Your task to perform on an android device: uninstall "Spotify: Music and Podcasts" Image 0: 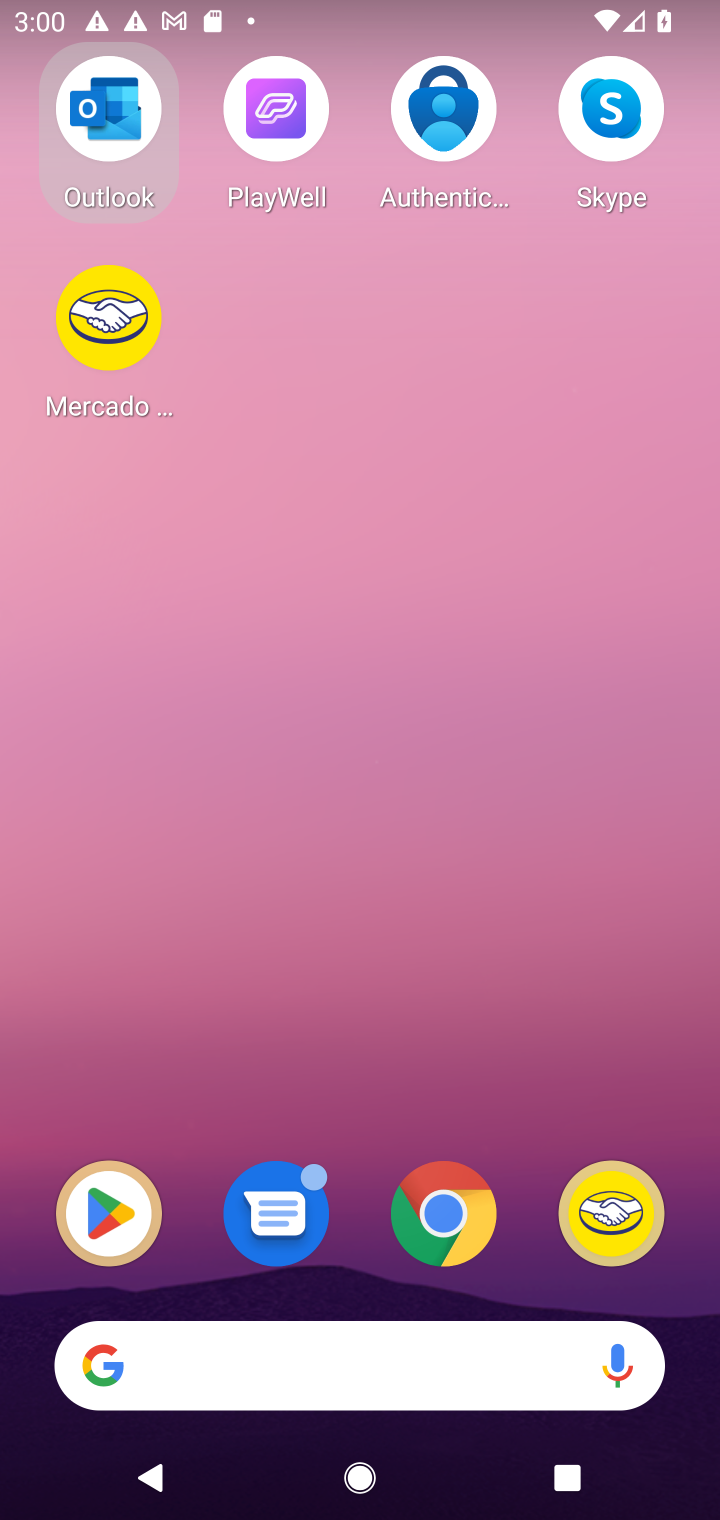
Step 0: drag from (510, 705) to (318, 17)
Your task to perform on an android device: uninstall "Spotify: Music and Podcasts" Image 1: 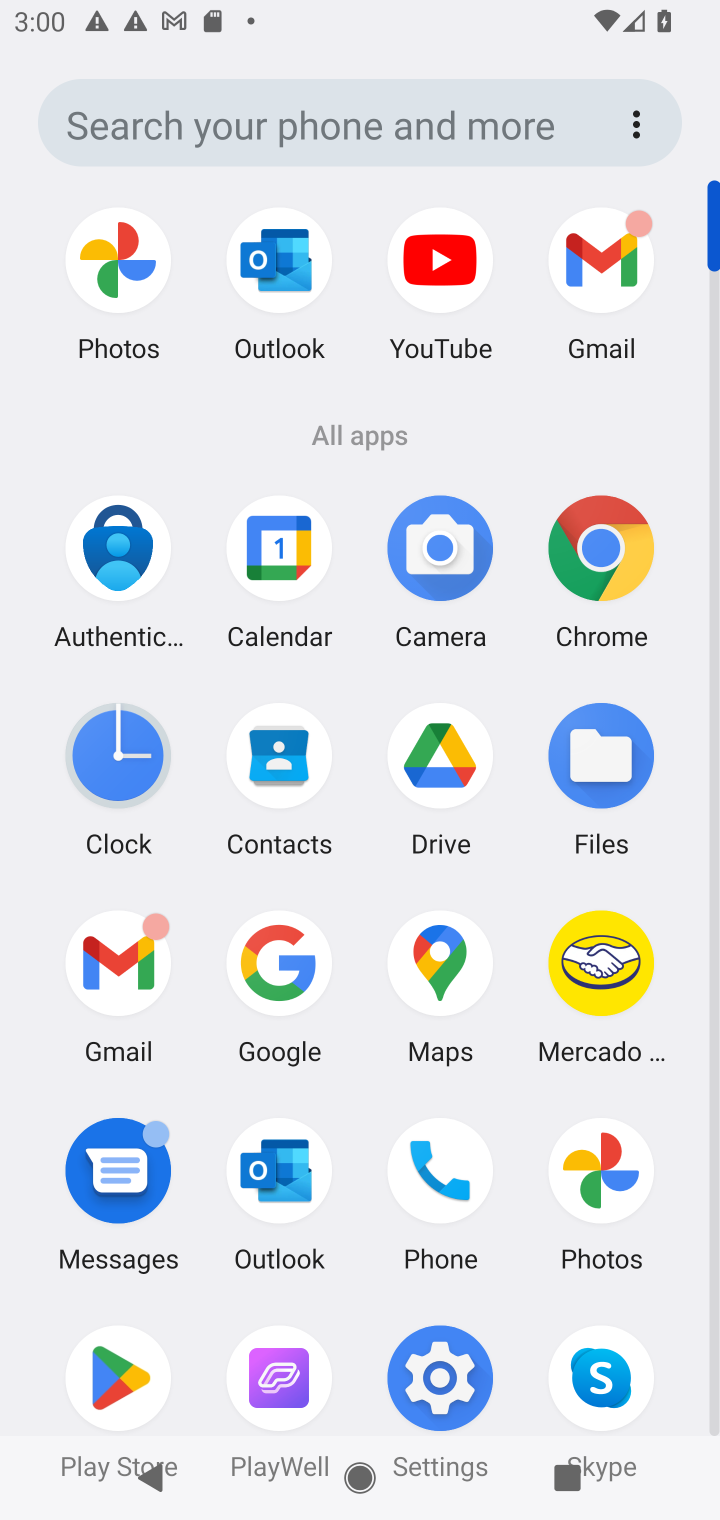
Step 1: drag from (358, 1298) to (416, 539)
Your task to perform on an android device: uninstall "Spotify: Music and Podcasts" Image 2: 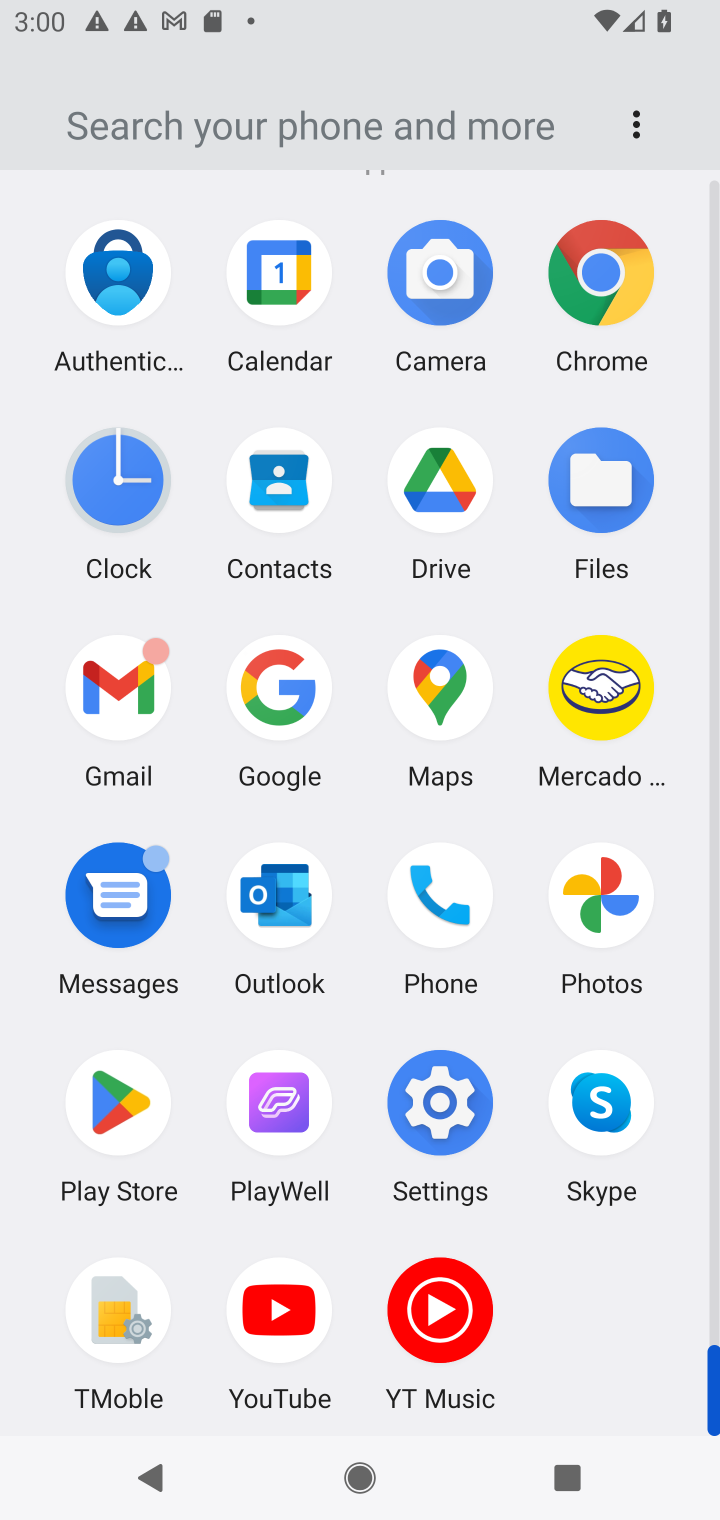
Step 2: click (135, 1069)
Your task to perform on an android device: uninstall "Spotify: Music and Podcasts" Image 3: 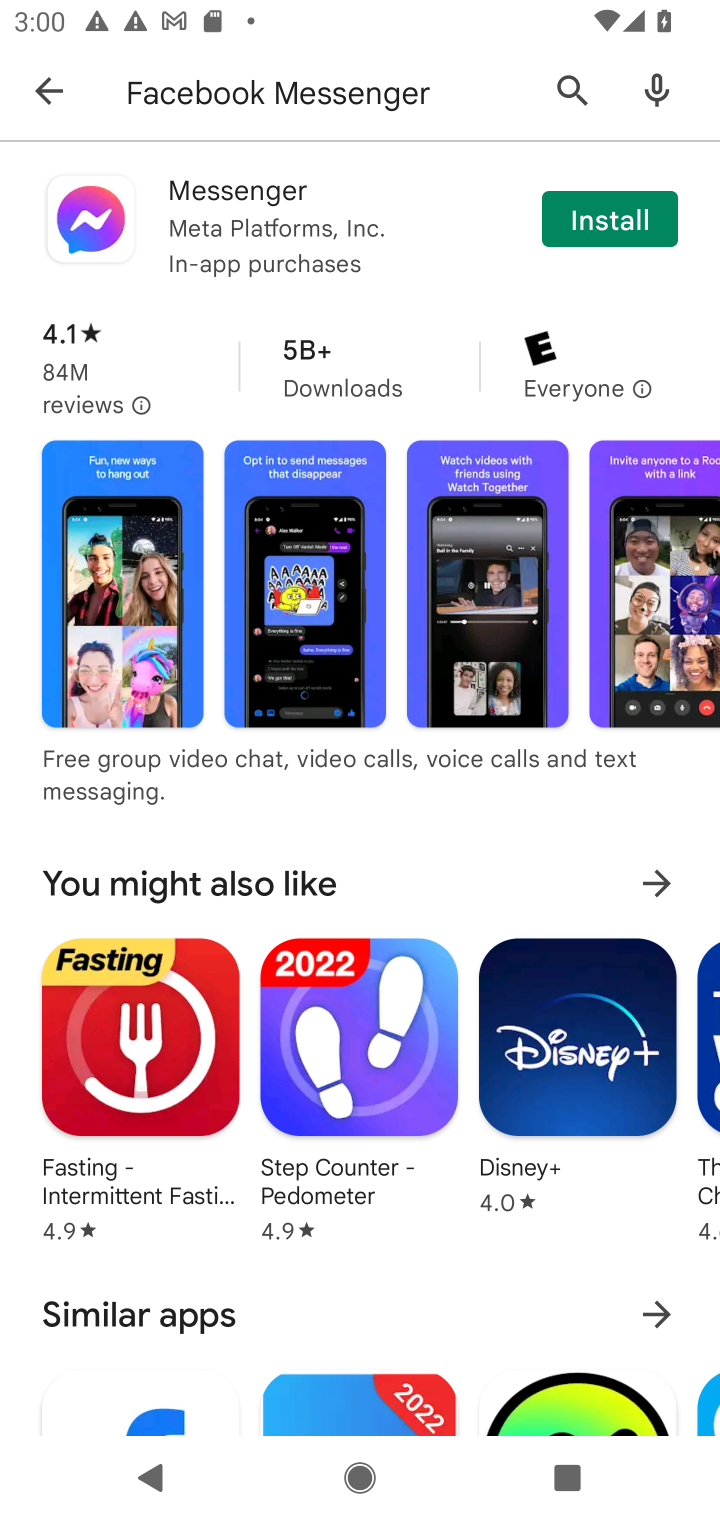
Step 3: click (380, 98)
Your task to perform on an android device: uninstall "Spotify: Music and Podcasts" Image 4: 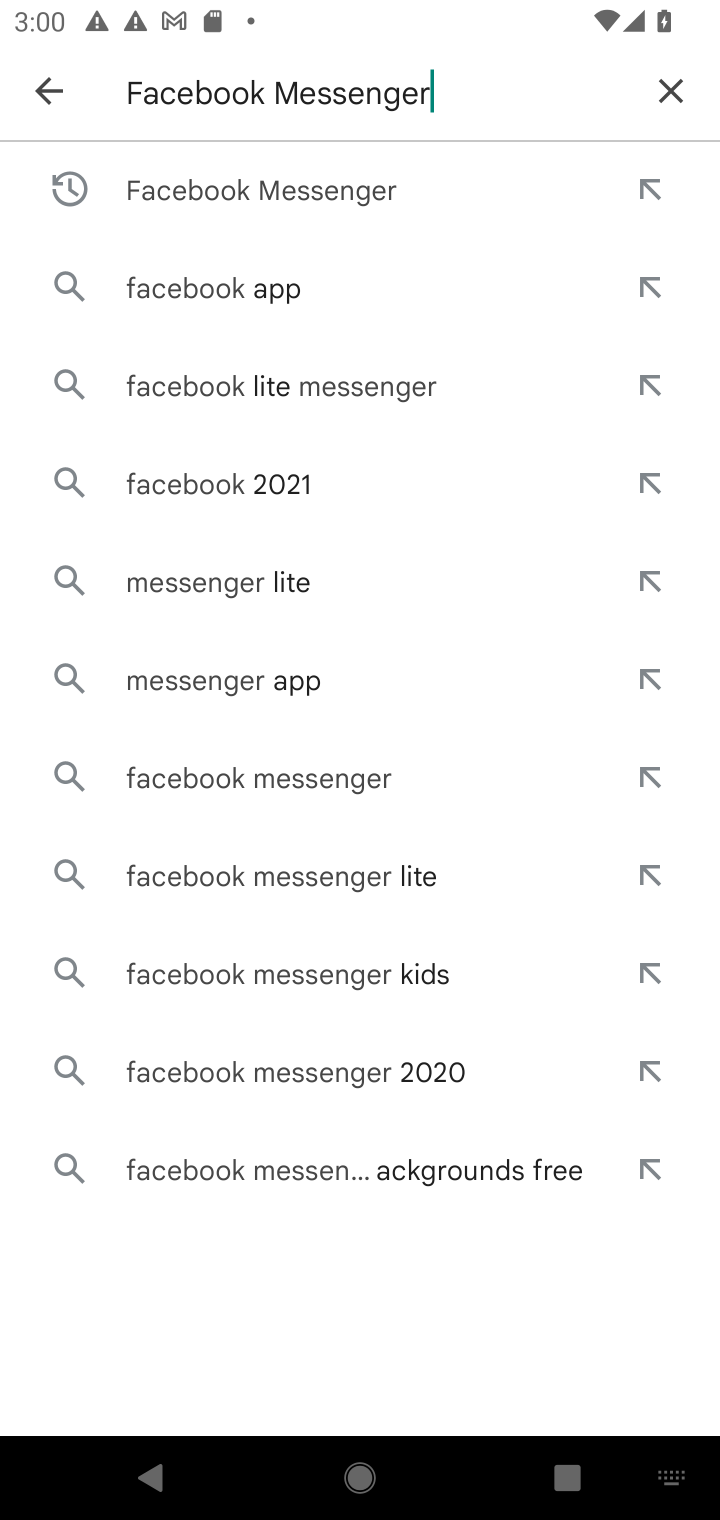
Step 4: click (686, 73)
Your task to perform on an android device: uninstall "Spotify: Music and Podcasts" Image 5: 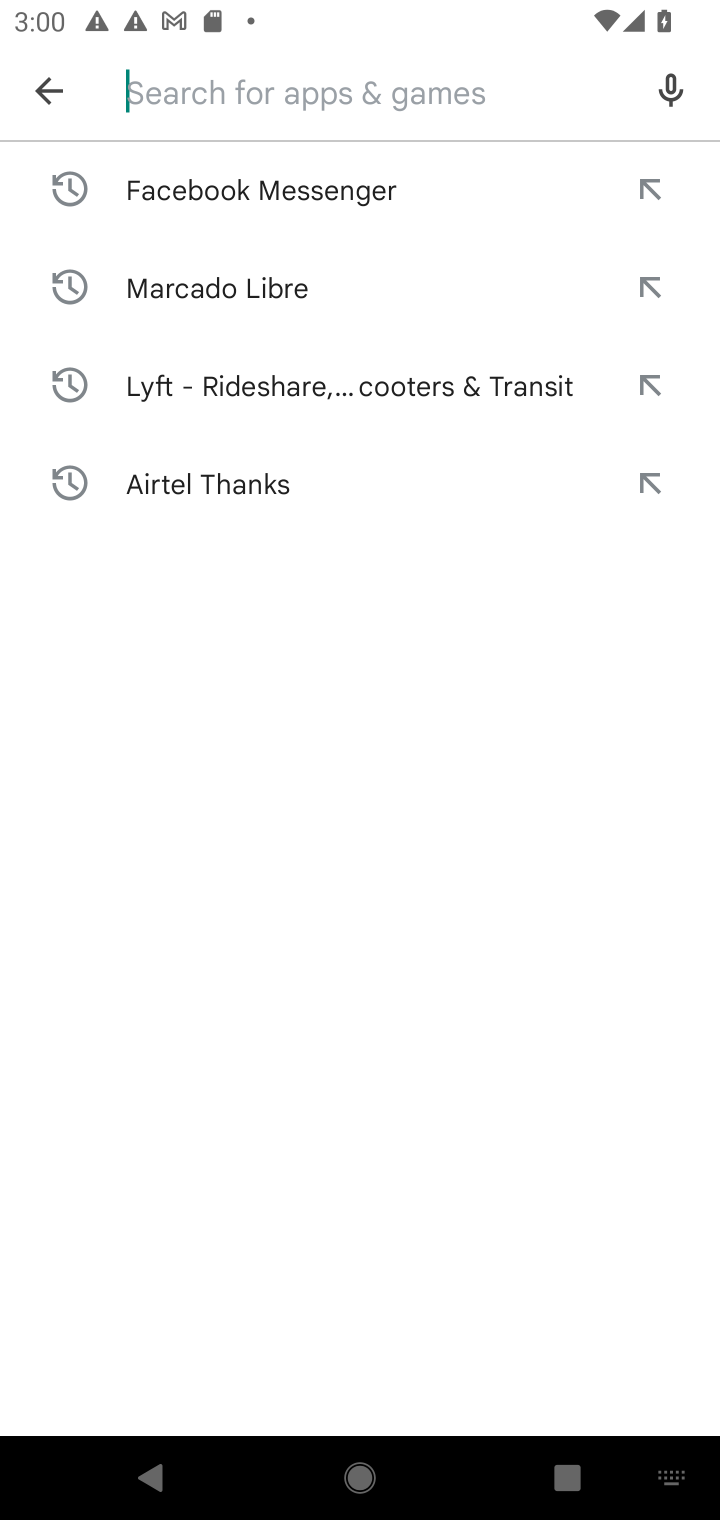
Step 5: type "Spotify: Music and Podcasts"
Your task to perform on an android device: uninstall "Spotify: Music and Podcasts" Image 6: 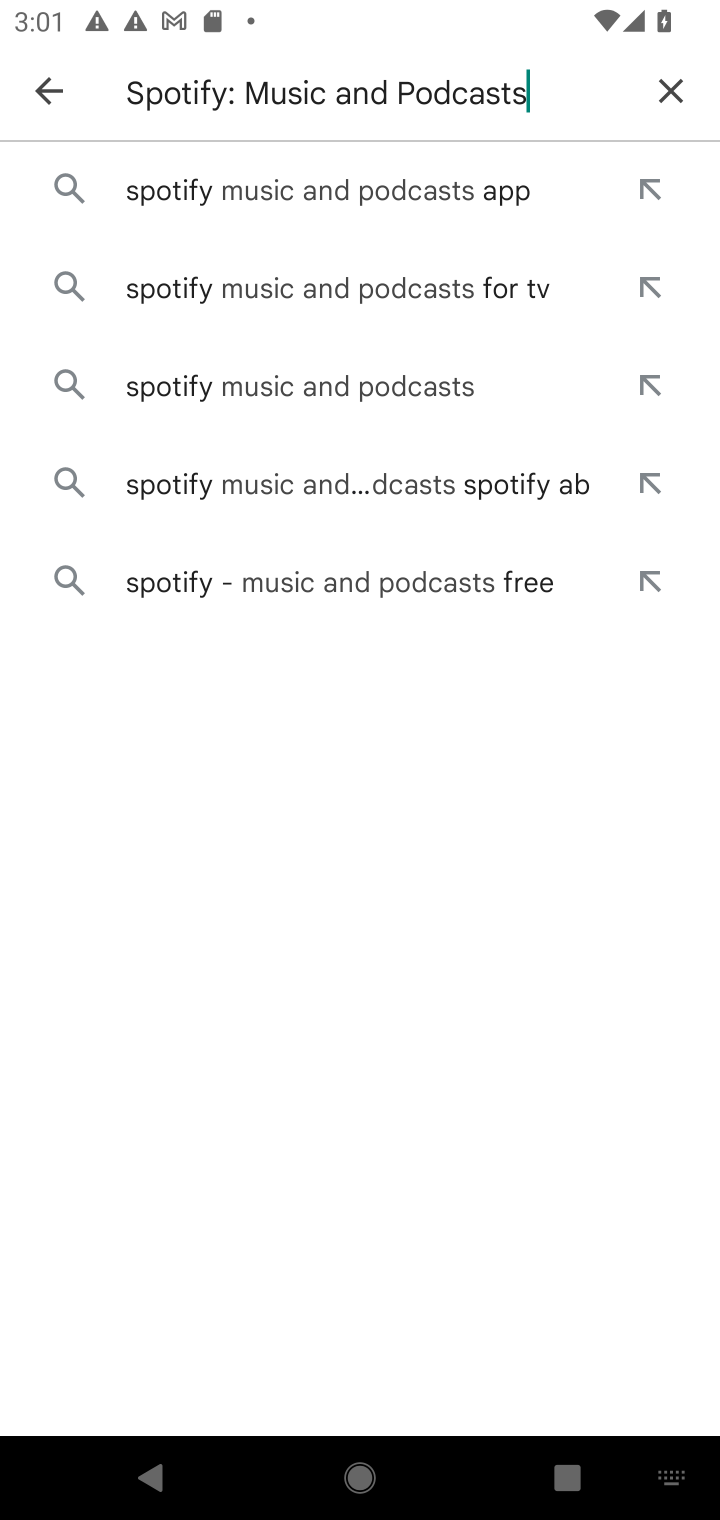
Step 6: press enter
Your task to perform on an android device: uninstall "Spotify: Music and Podcasts" Image 7: 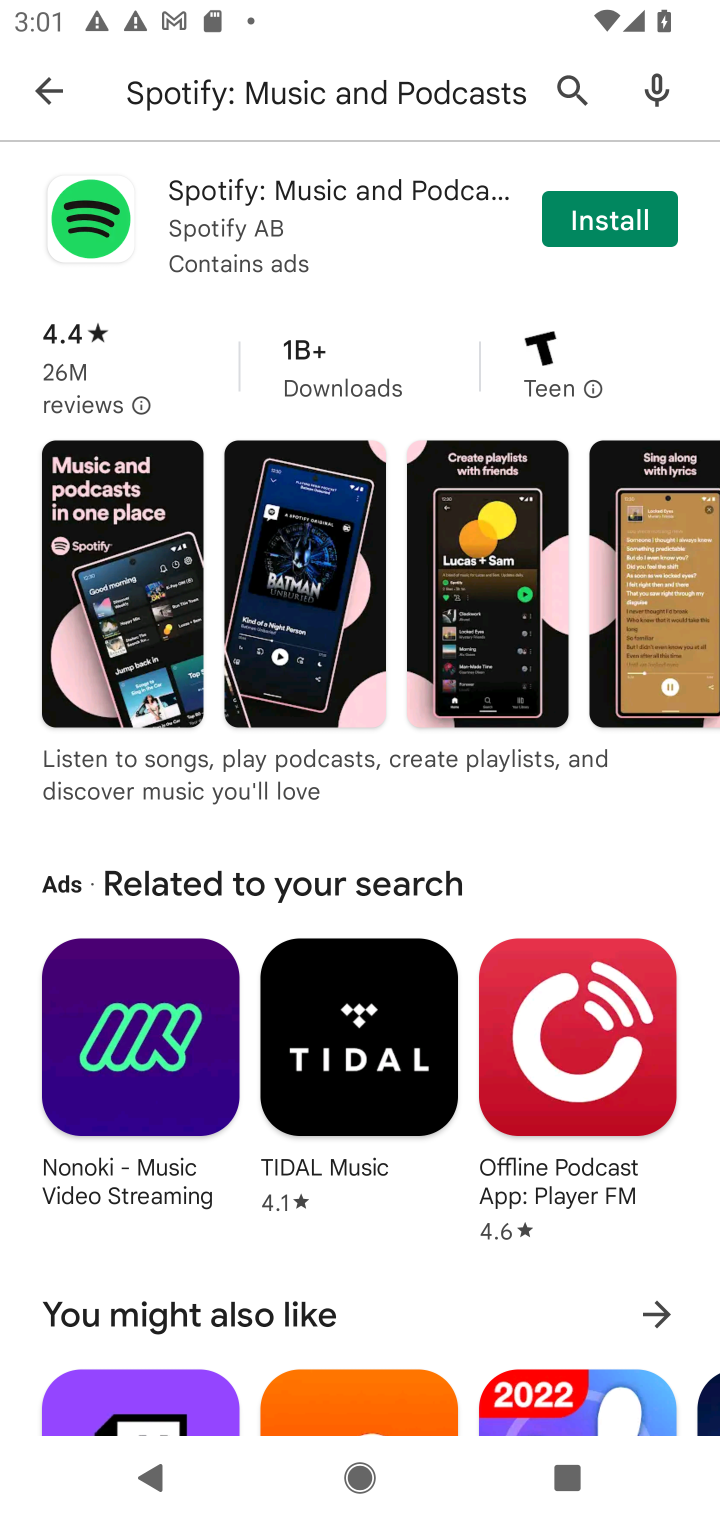
Step 7: task complete